Your task to perform on an android device: Open calendar and show me the third week of next month Image 0: 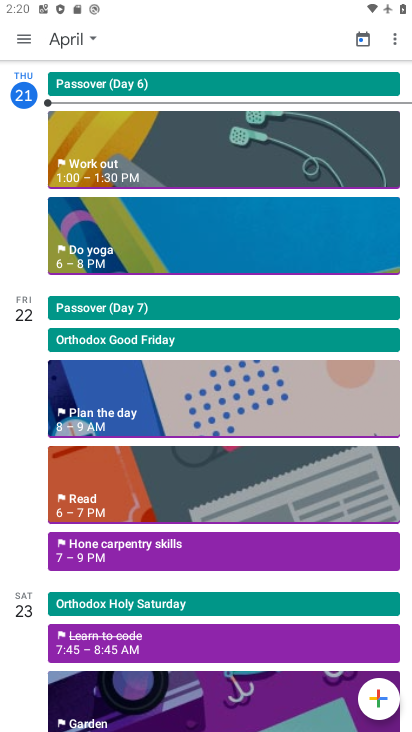
Step 0: click (95, 35)
Your task to perform on an android device: Open calendar and show me the third week of next month Image 1: 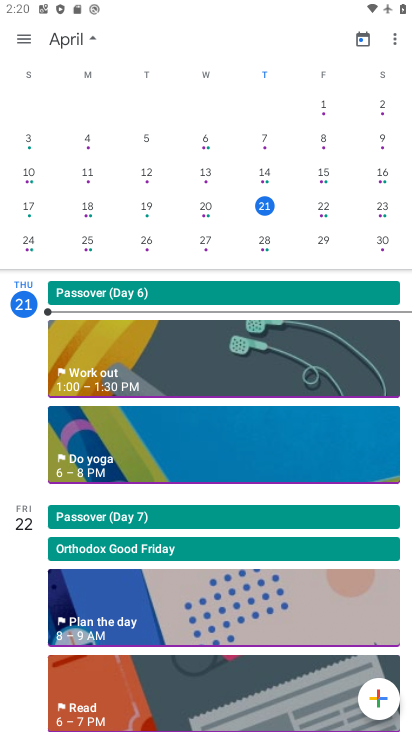
Step 1: drag from (290, 208) to (2, 210)
Your task to perform on an android device: Open calendar and show me the third week of next month Image 2: 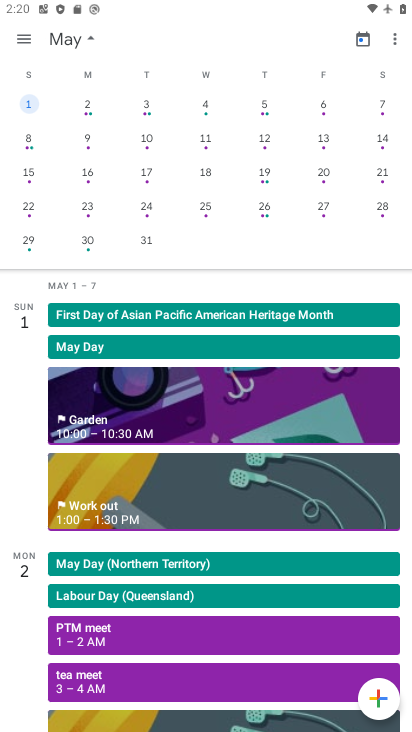
Step 2: click (18, 219)
Your task to perform on an android device: Open calendar and show me the third week of next month Image 3: 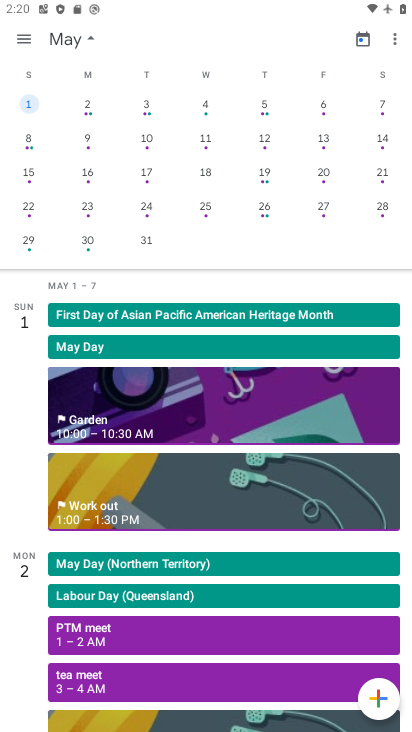
Step 3: click (91, 172)
Your task to perform on an android device: Open calendar and show me the third week of next month Image 4: 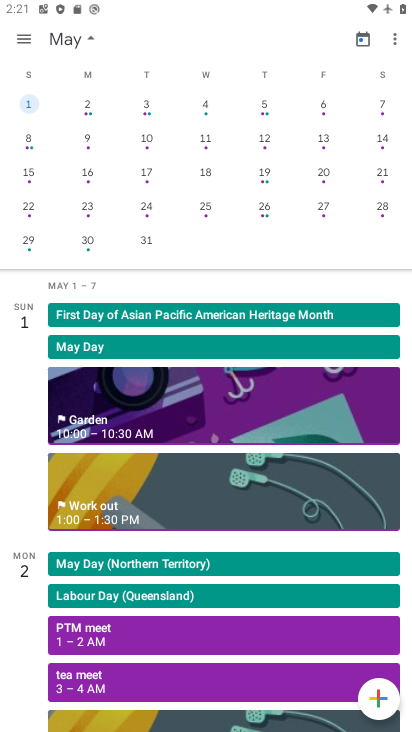
Step 4: click (90, 171)
Your task to perform on an android device: Open calendar and show me the third week of next month Image 5: 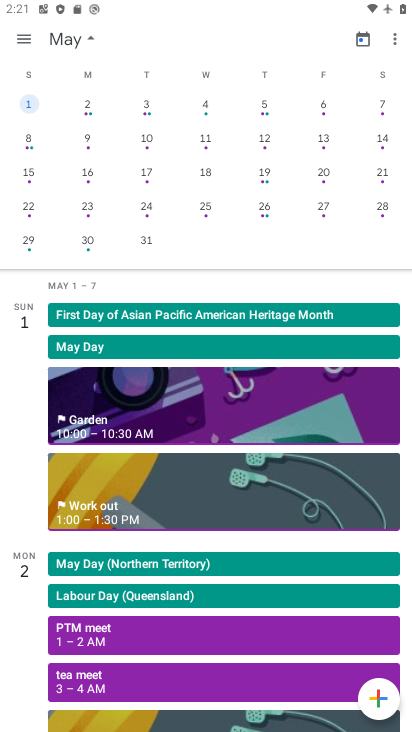
Step 5: click (85, 161)
Your task to perform on an android device: Open calendar and show me the third week of next month Image 6: 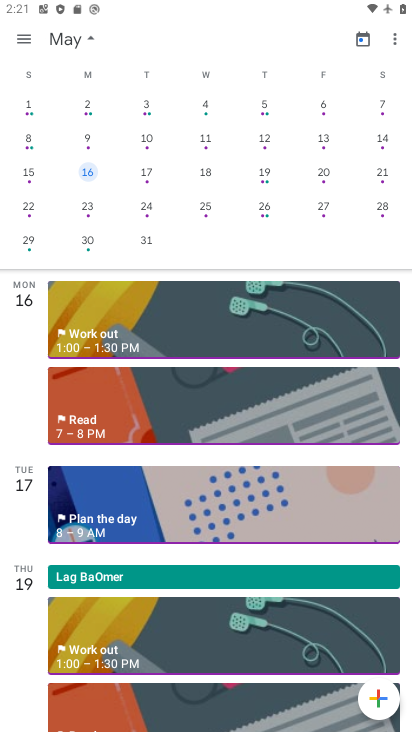
Step 6: task complete